Your task to perform on an android device: Search for the new nike air max shoes on Nike. Image 0: 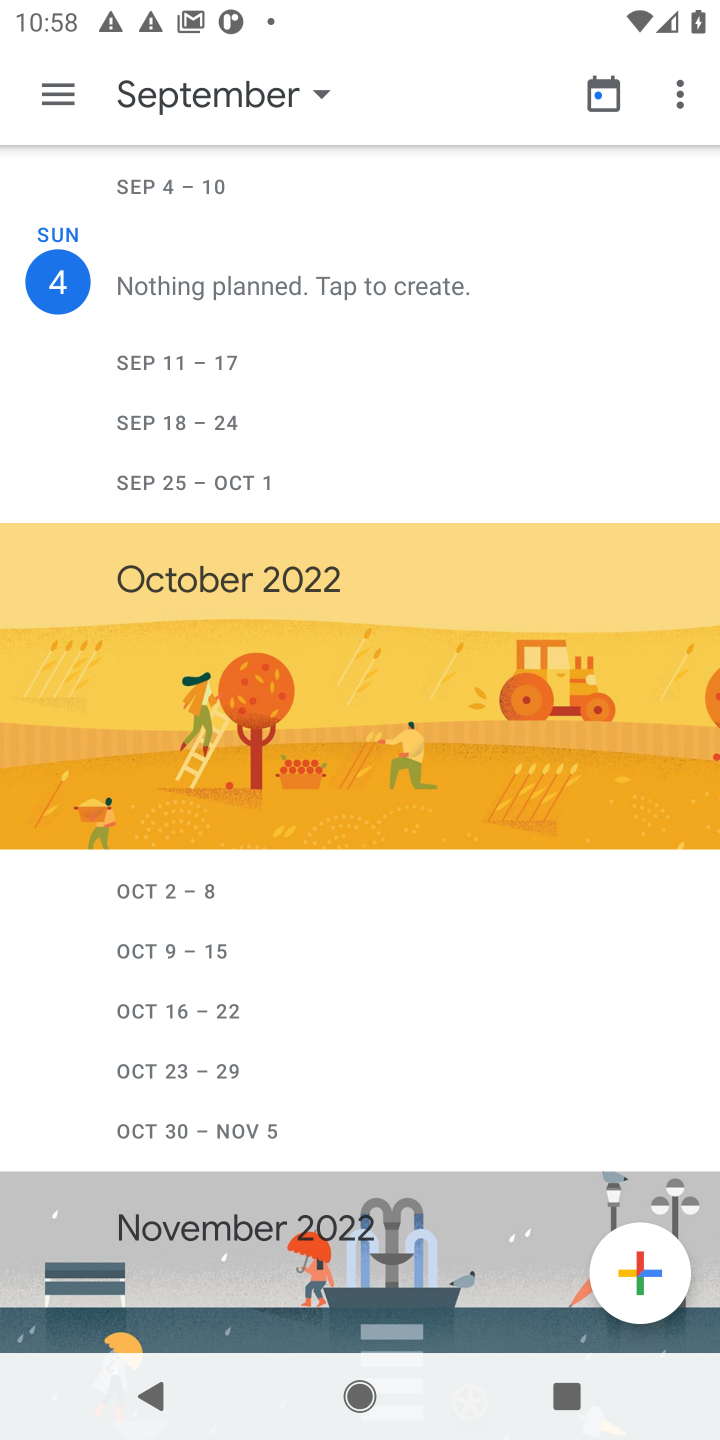
Step 0: press home button
Your task to perform on an android device: Search for the new nike air max shoes on Nike. Image 1: 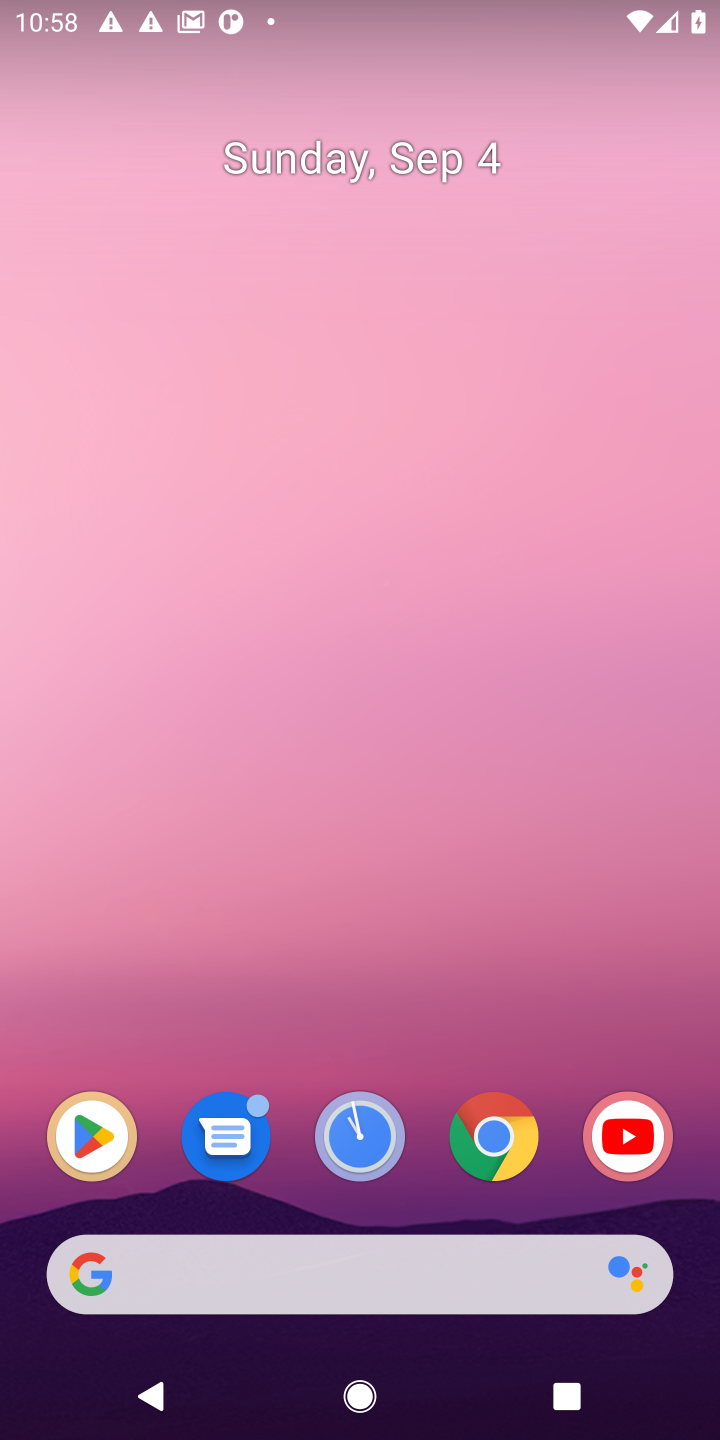
Step 1: click (507, 1151)
Your task to perform on an android device: Search for the new nike air max shoes on Nike. Image 2: 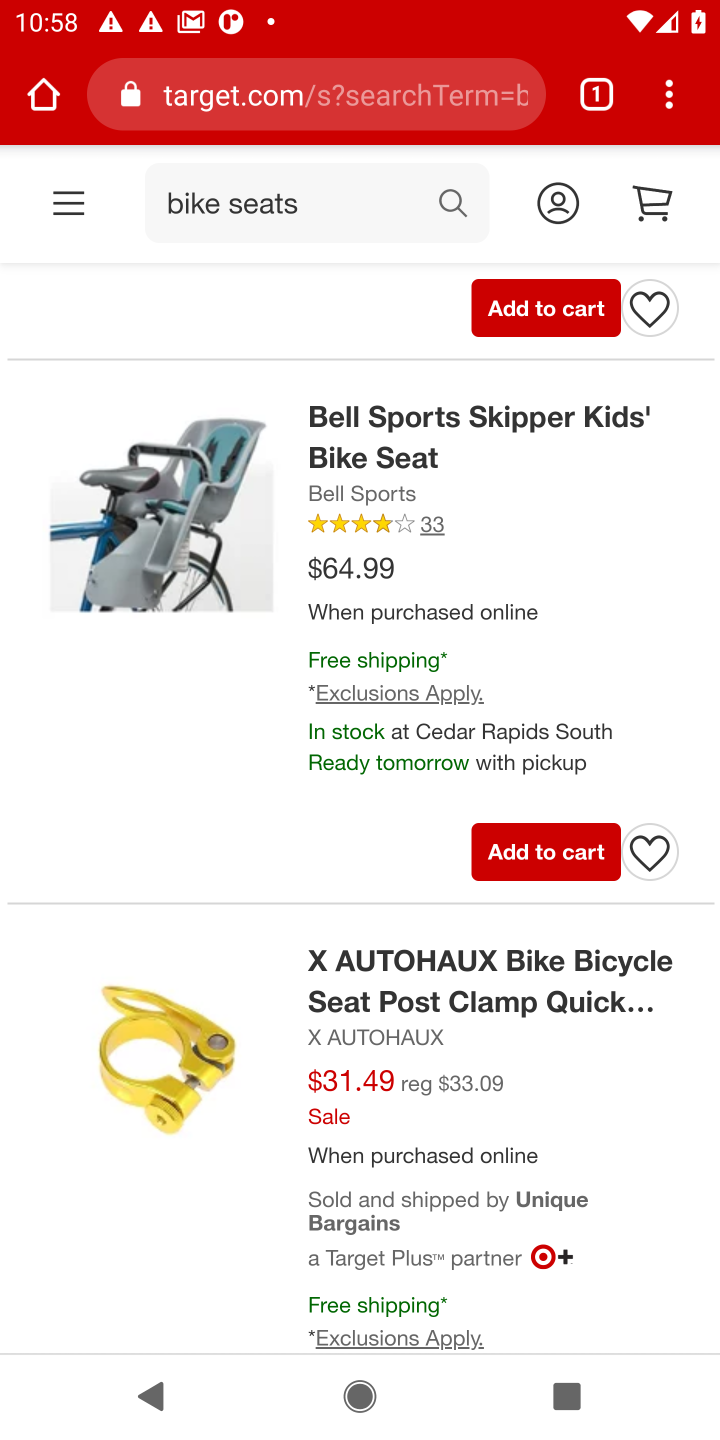
Step 2: click (453, 99)
Your task to perform on an android device: Search for the new nike air max shoes on Nike. Image 3: 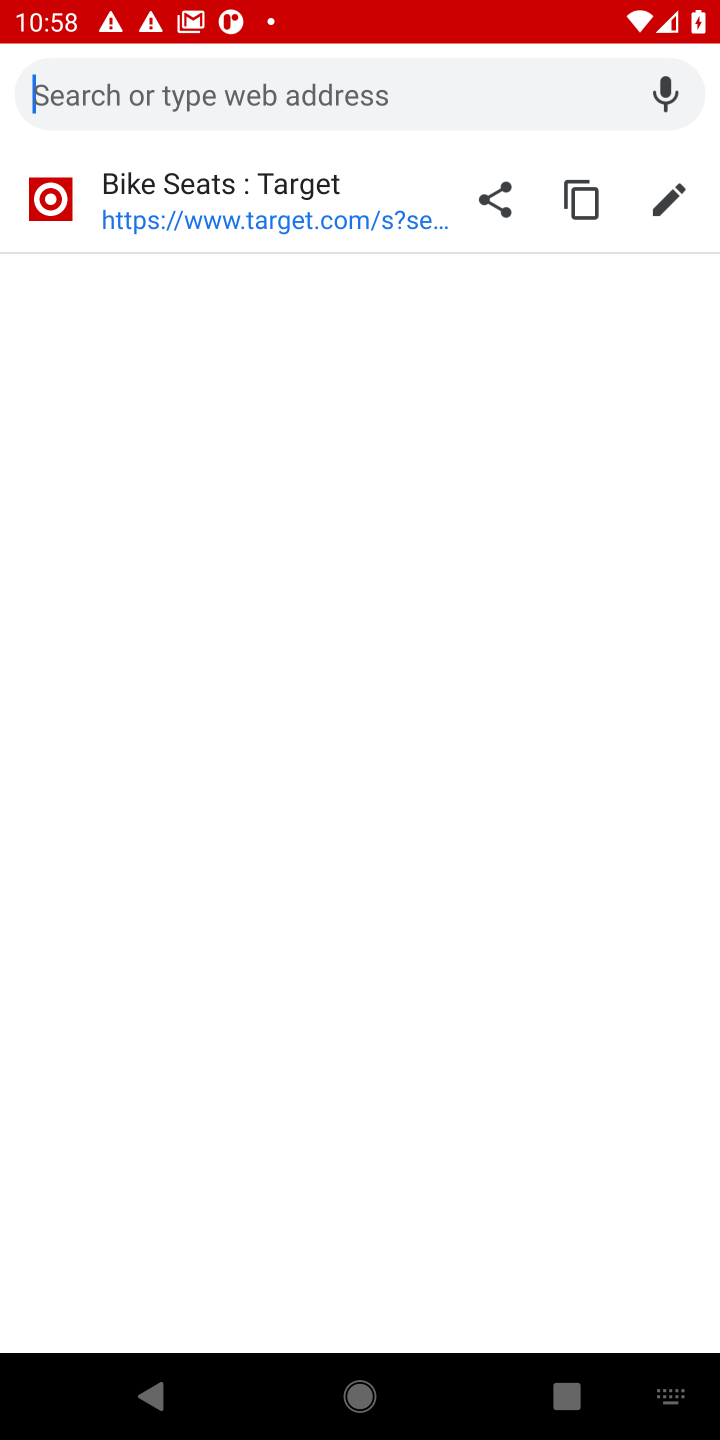
Step 3: press enter
Your task to perform on an android device: Search for the new nike air max shoes on Nike. Image 4: 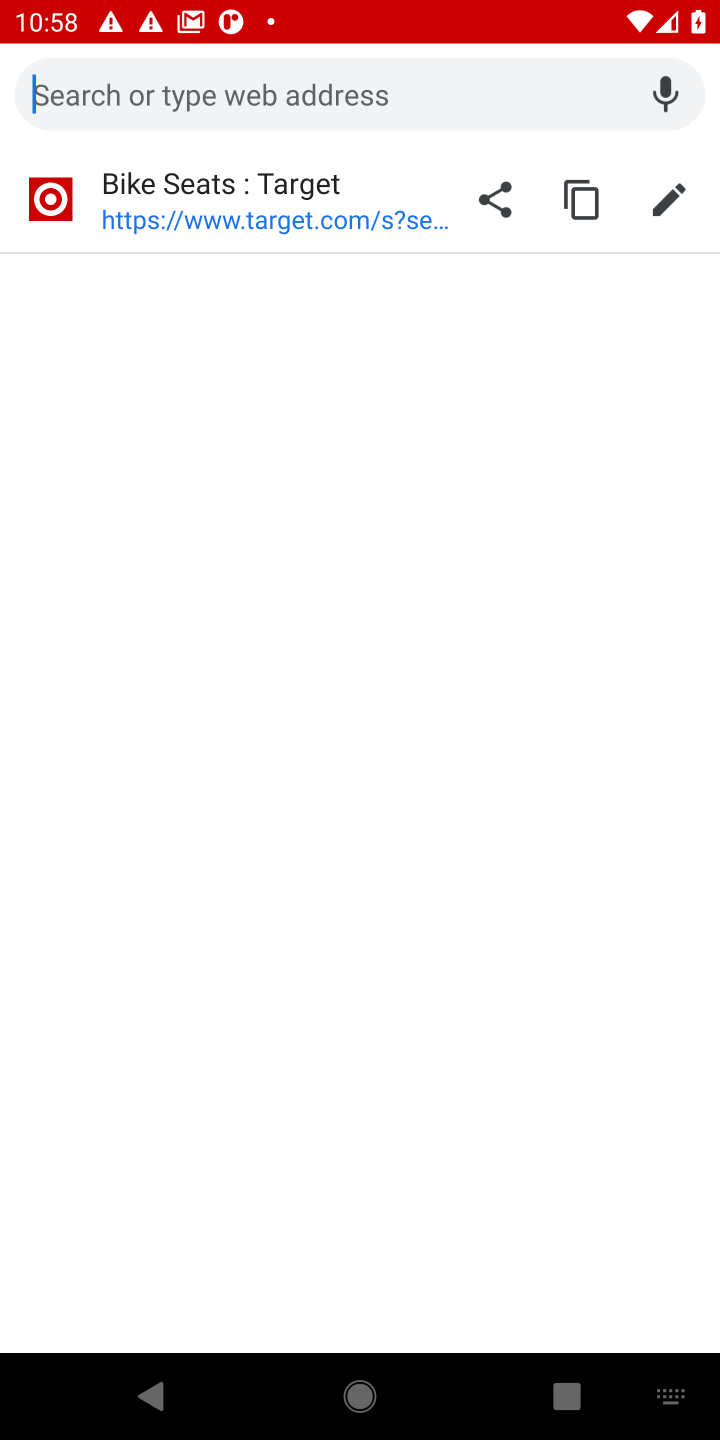
Step 4: type "Nike"
Your task to perform on an android device: Search for the new nike air max shoes on Nike. Image 5: 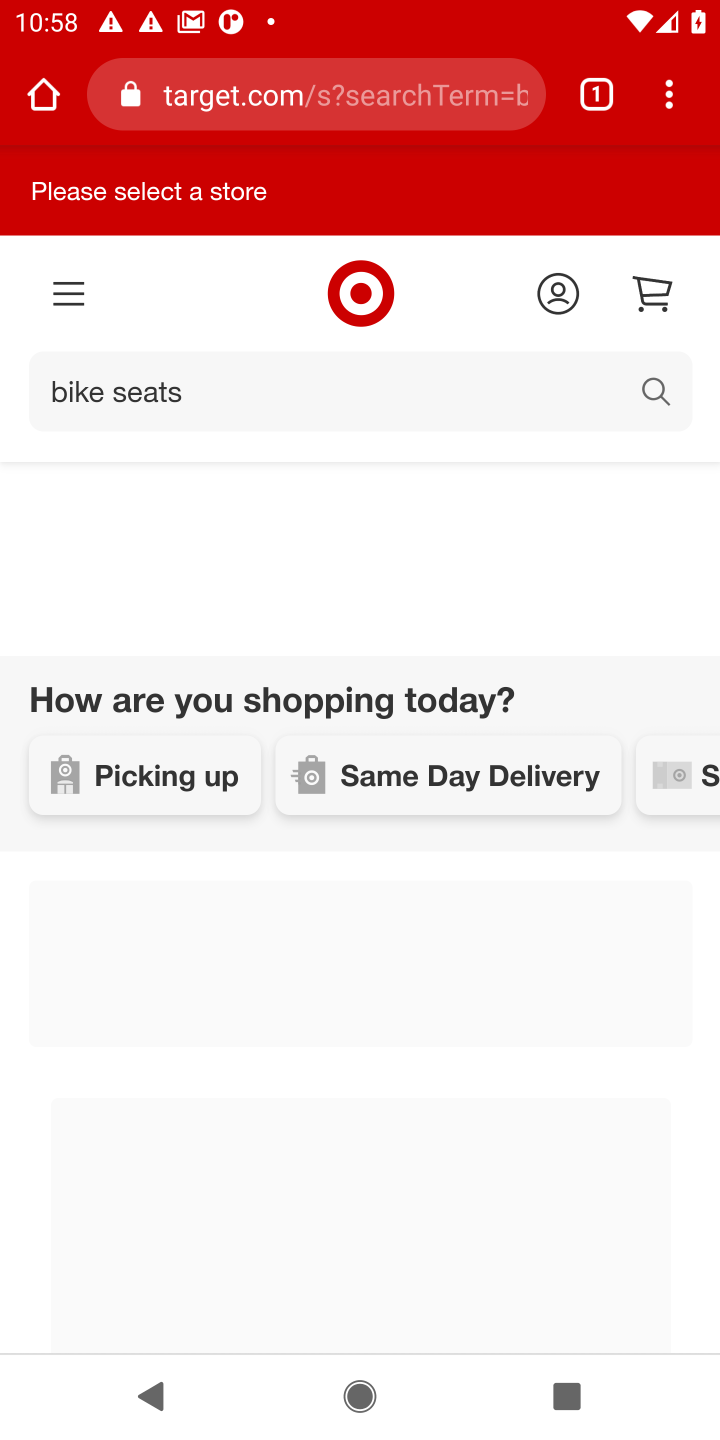
Step 5: click (406, 100)
Your task to perform on an android device: Search for the new nike air max shoes on Nike. Image 6: 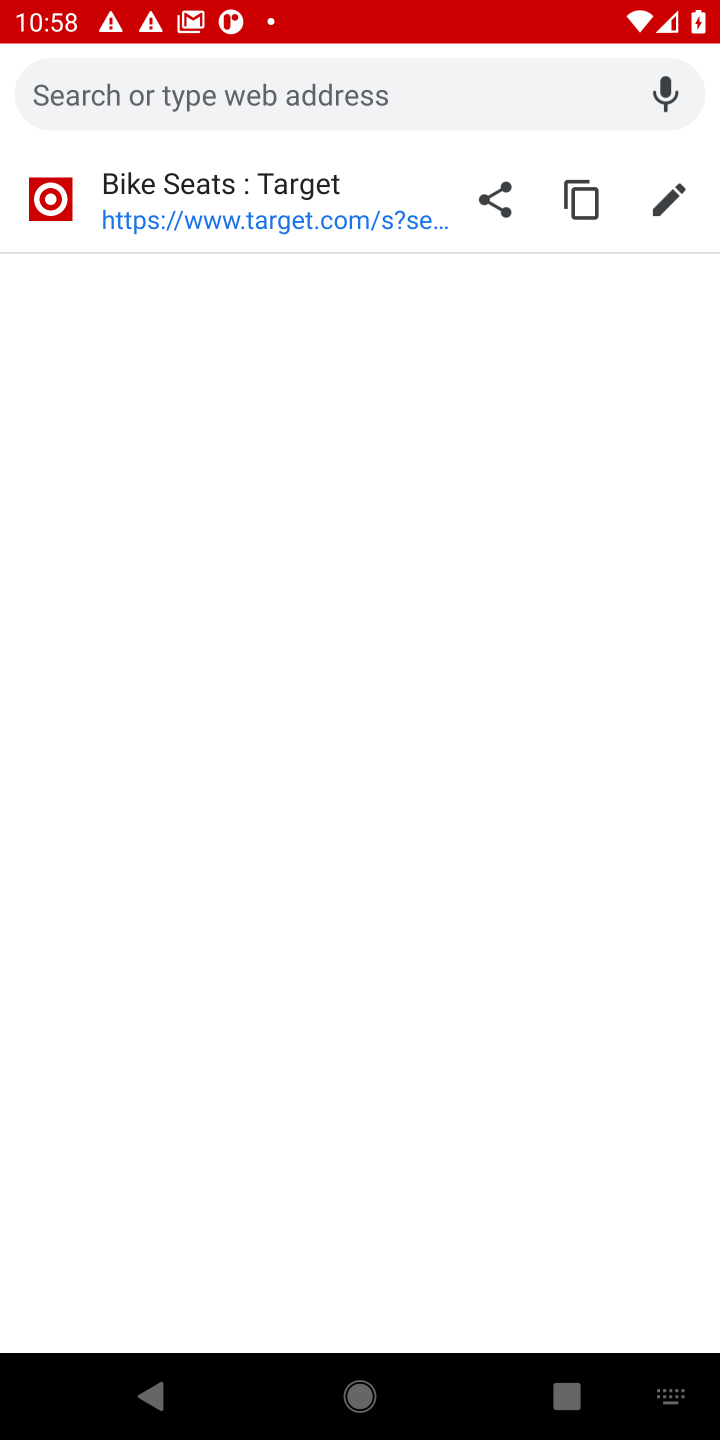
Step 6: press enter
Your task to perform on an android device: Search for the new nike air max shoes on Nike. Image 7: 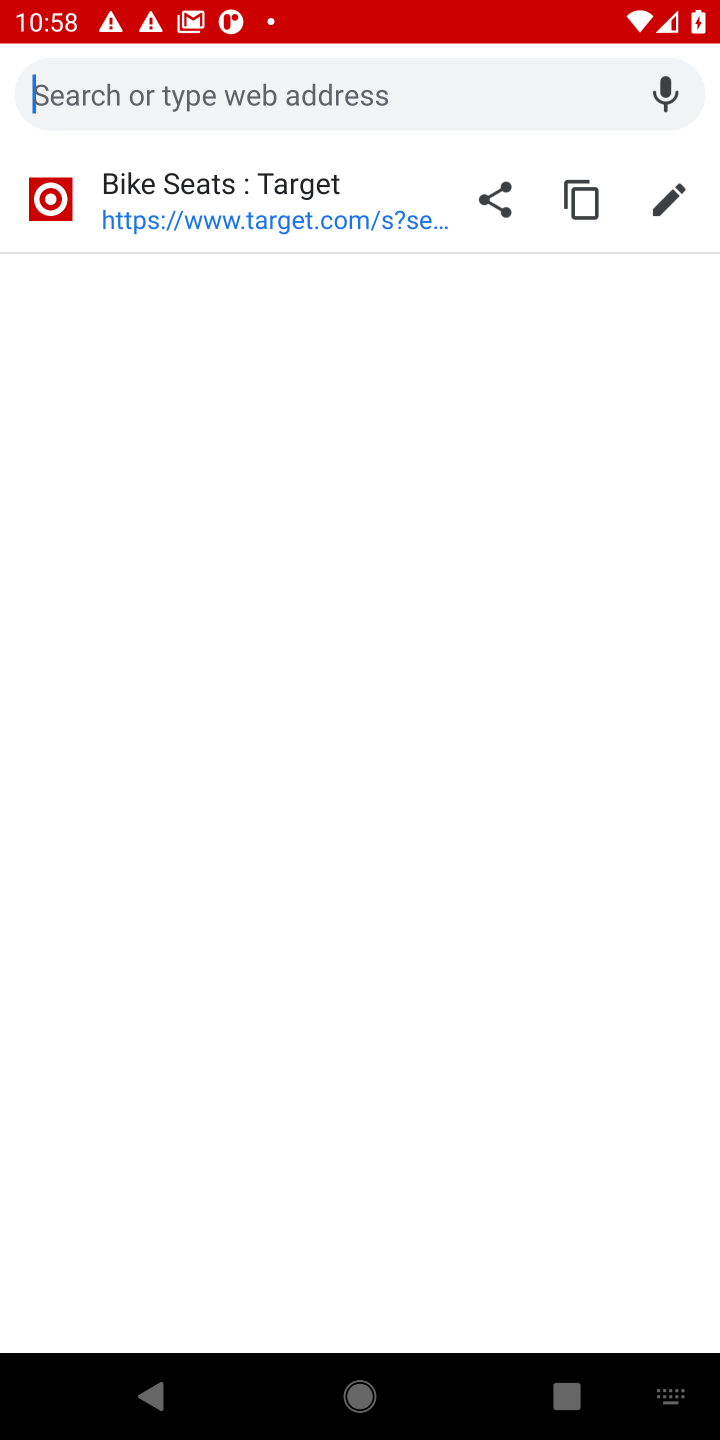
Step 7: type "Nike"
Your task to perform on an android device: Search for the new nike air max shoes on Nike. Image 8: 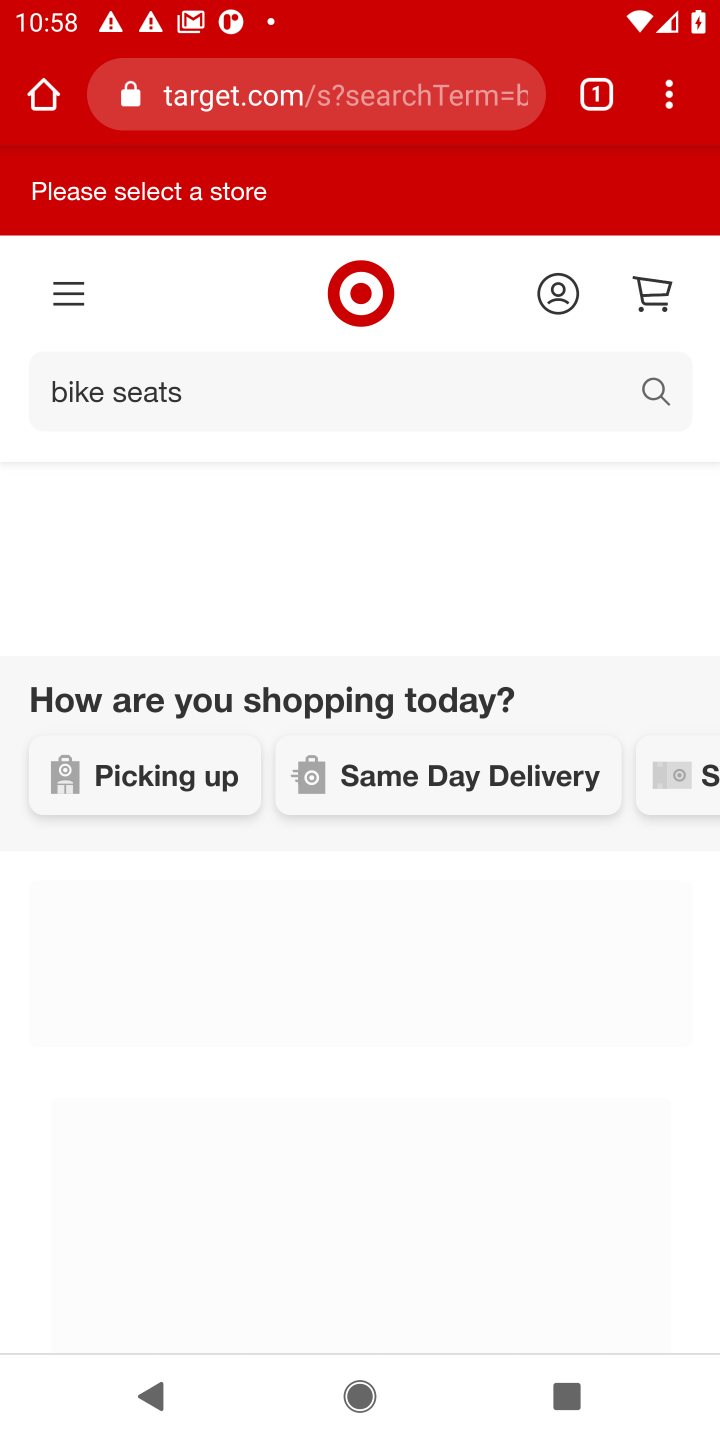
Step 8: click (295, 112)
Your task to perform on an android device: Search for the new nike air max shoes on Nike. Image 9: 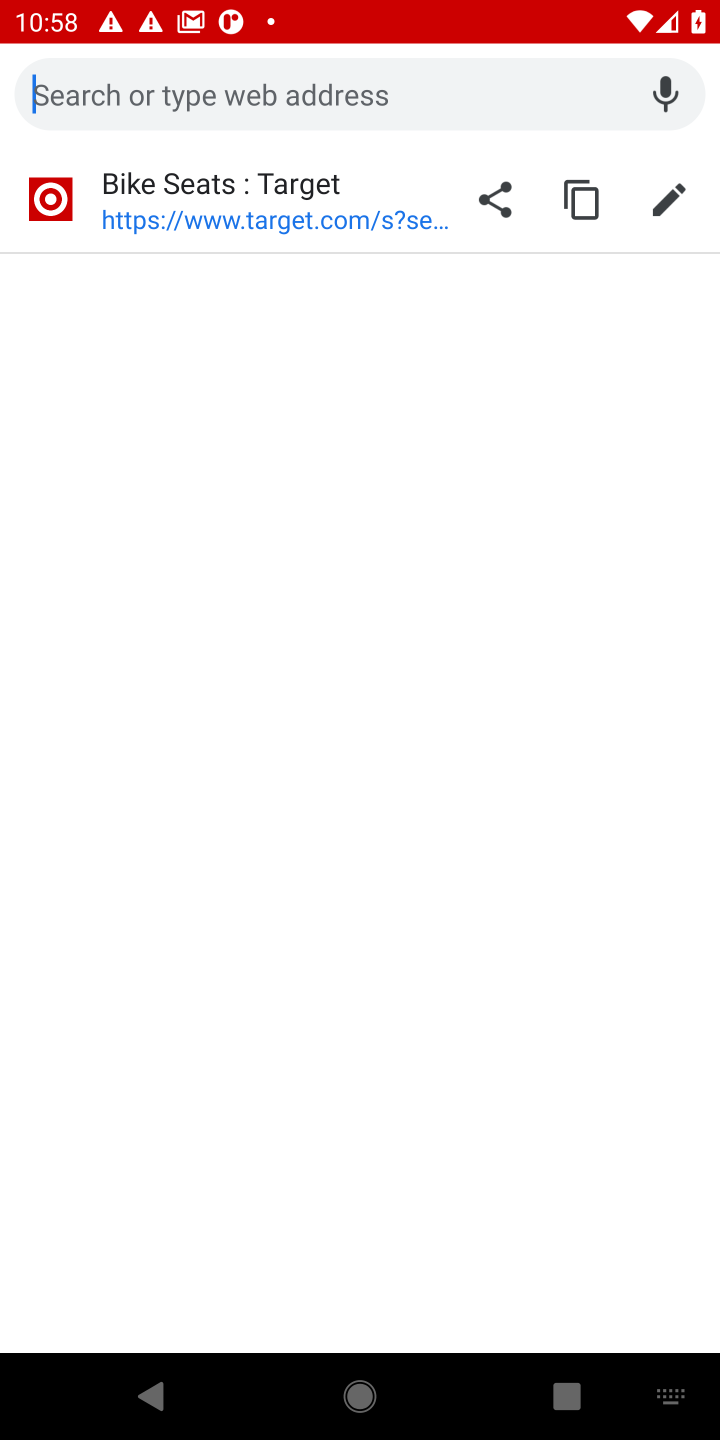
Step 9: type "Nike"
Your task to perform on an android device: Search for the new nike air max shoes on Nike. Image 10: 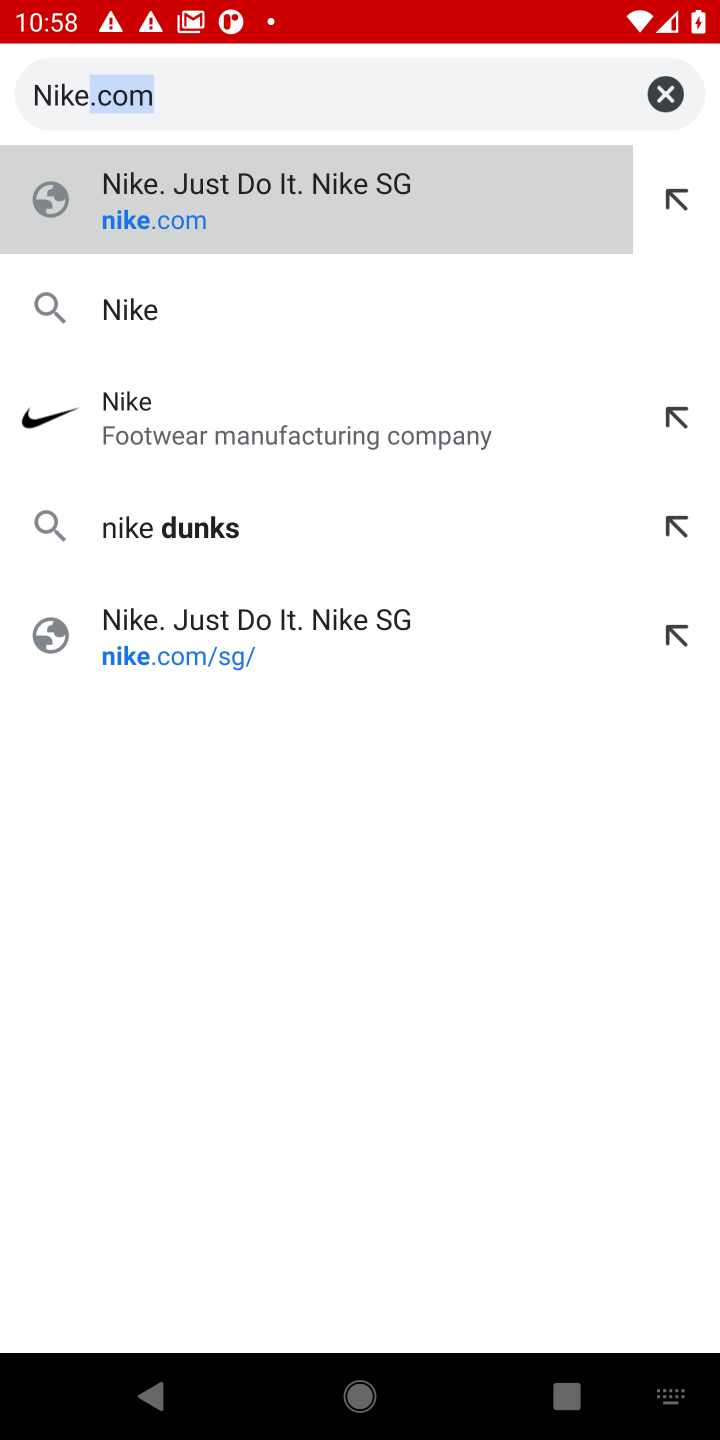
Step 10: press enter
Your task to perform on an android device: Search for the new nike air max shoes on Nike. Image 11: 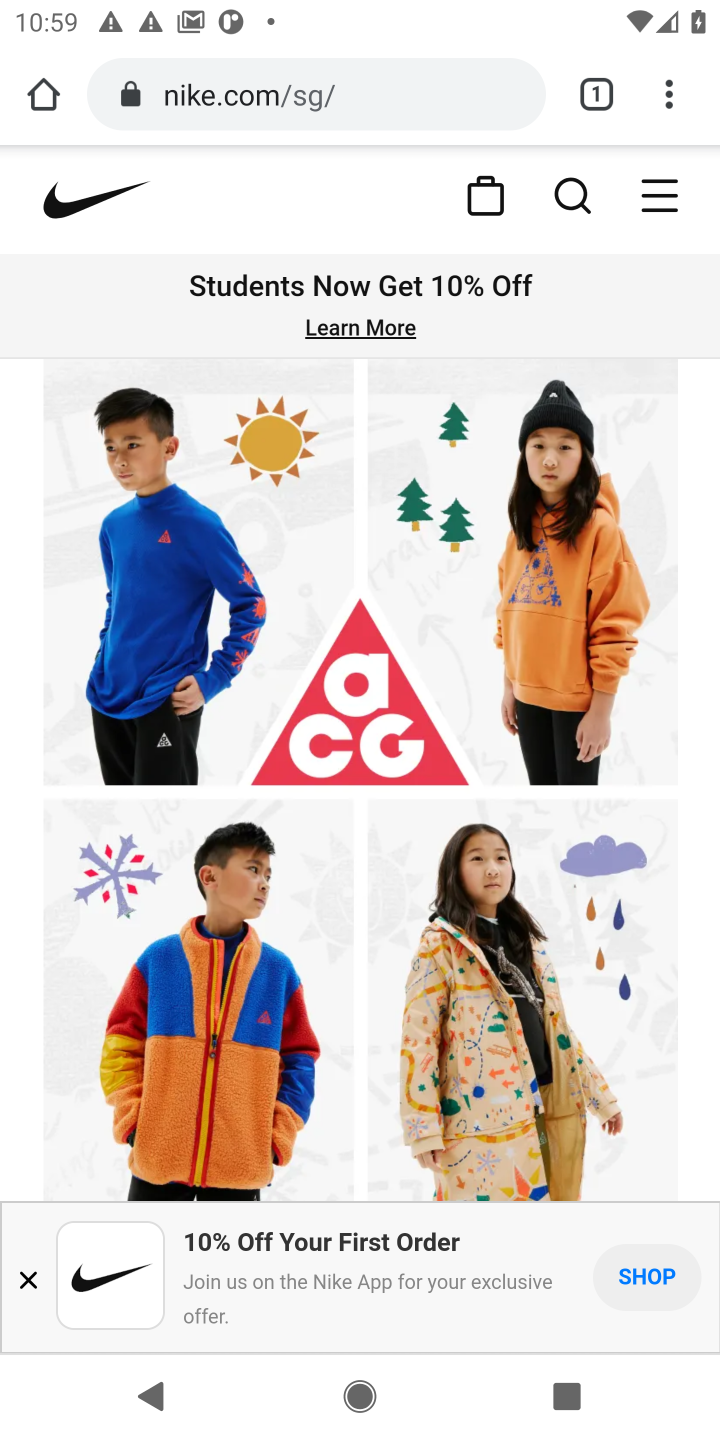
Step 11: click (555, 214)
Your task to perform on an android device: Search for the new nike air max shoes on Nike. Image 12: 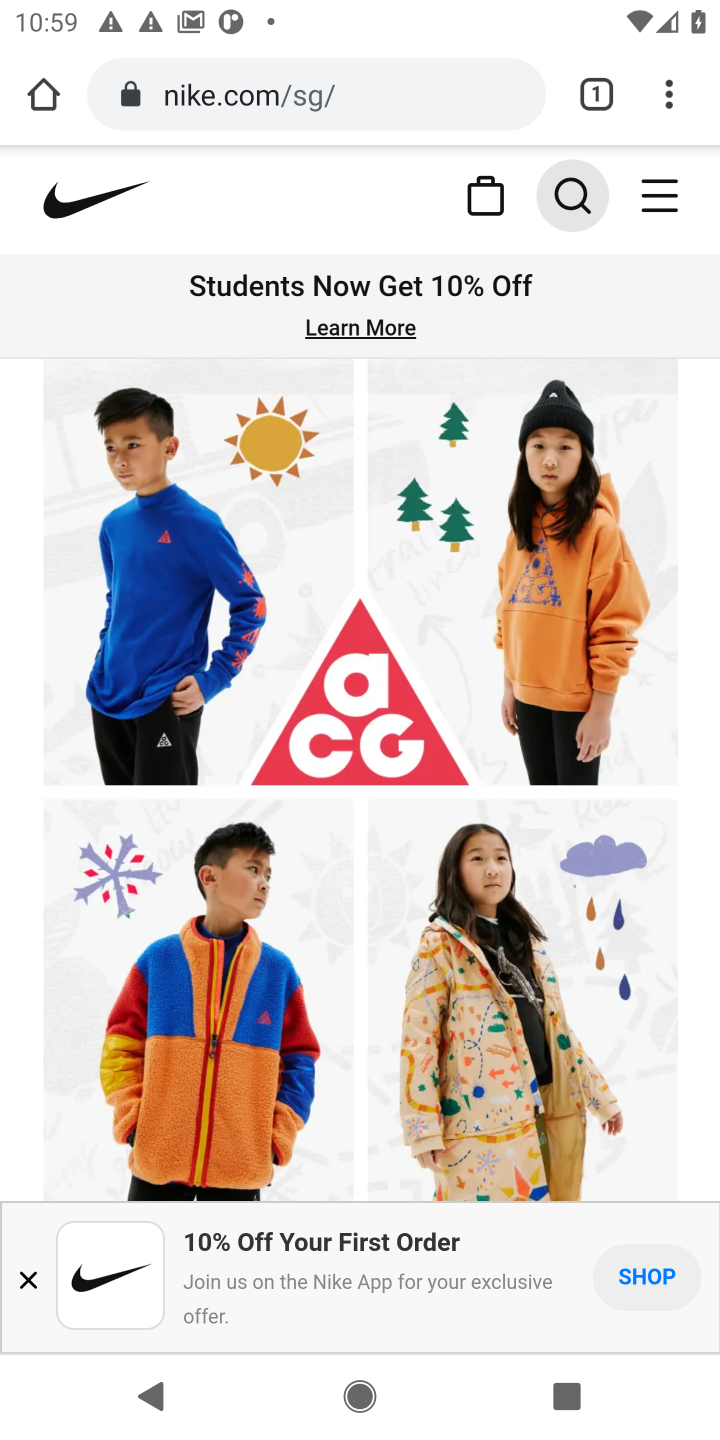
Step 12: click (536, 172)
Your task to perform on an android device: Search for the new nike air max shoes on Nike. Image 13: 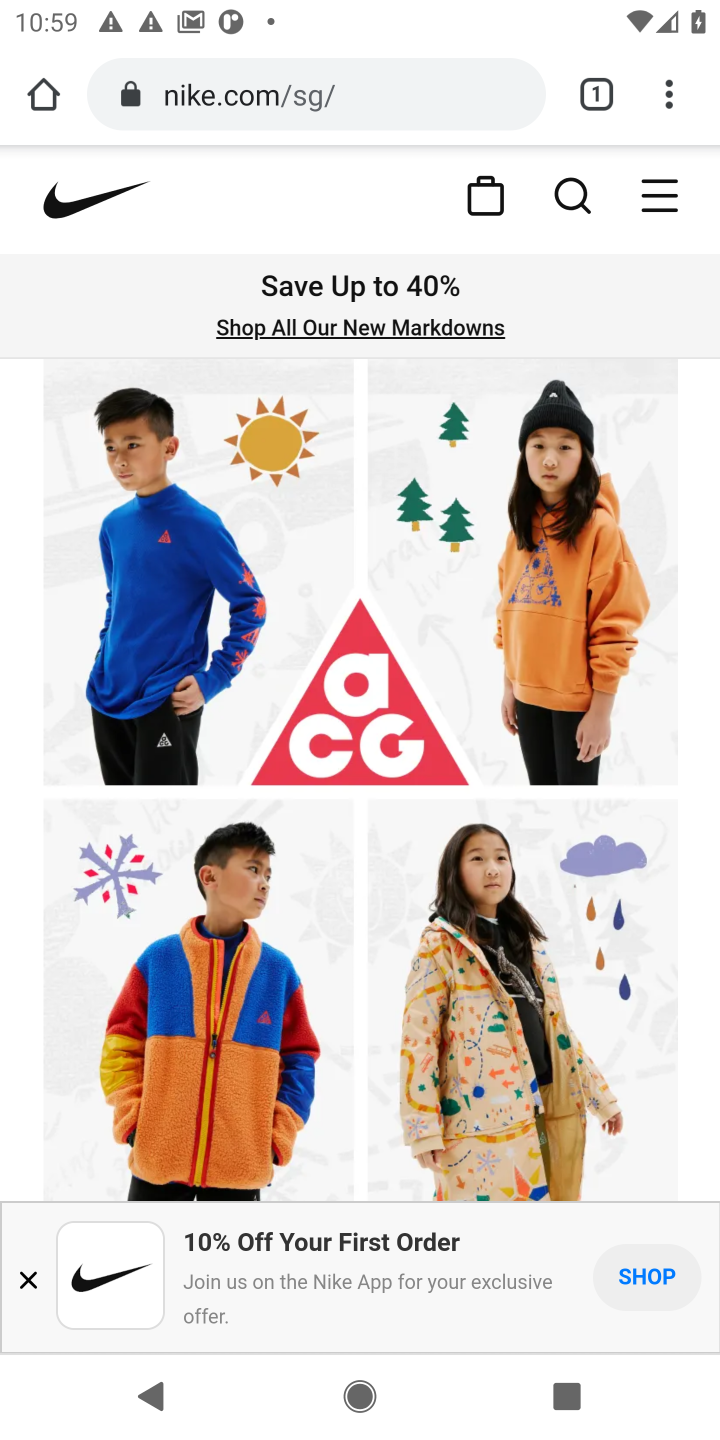
Step 13: click (550, 182)
Your task to perform on an android device: Search for the new nike air max shoes on Nike. Image 14: 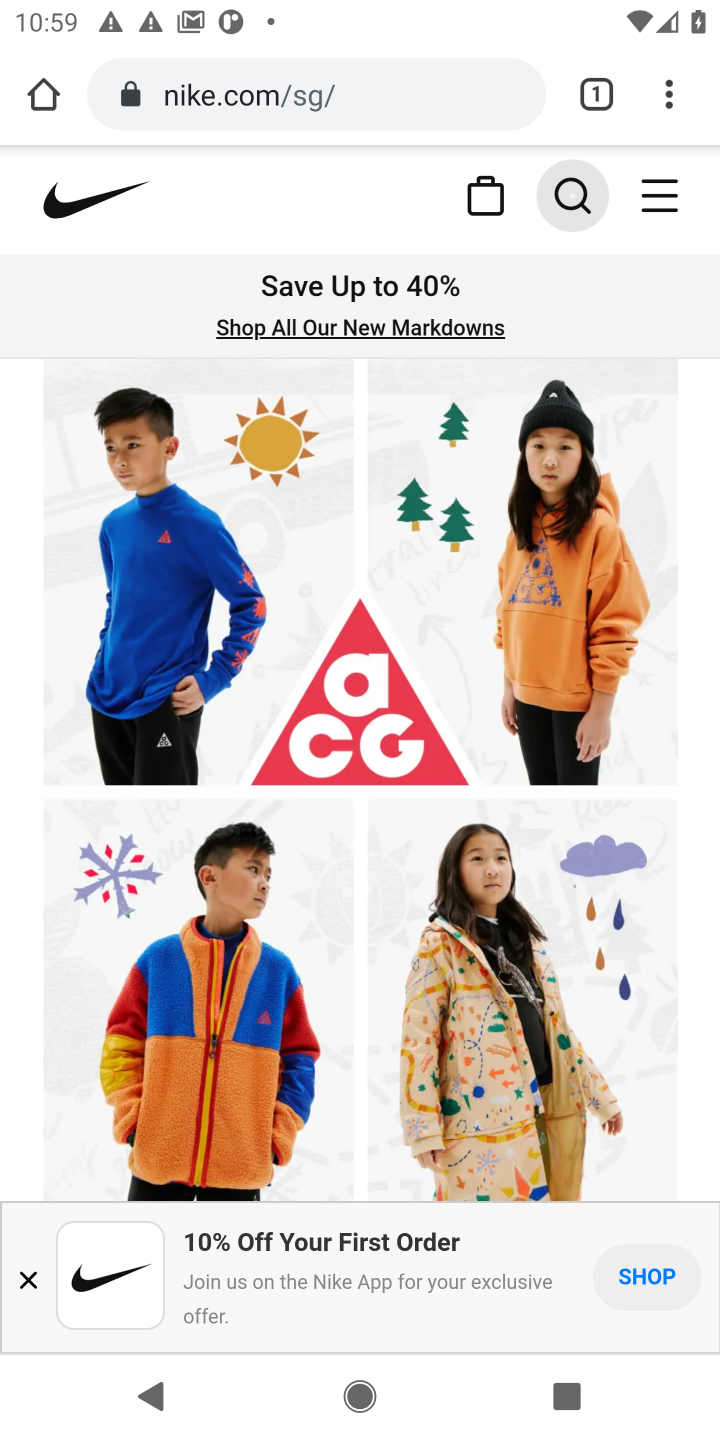
Step 14: click (525, 168)
Your task to perform on an android device: Search for the new nike air max shoes on Nike. Image 15: 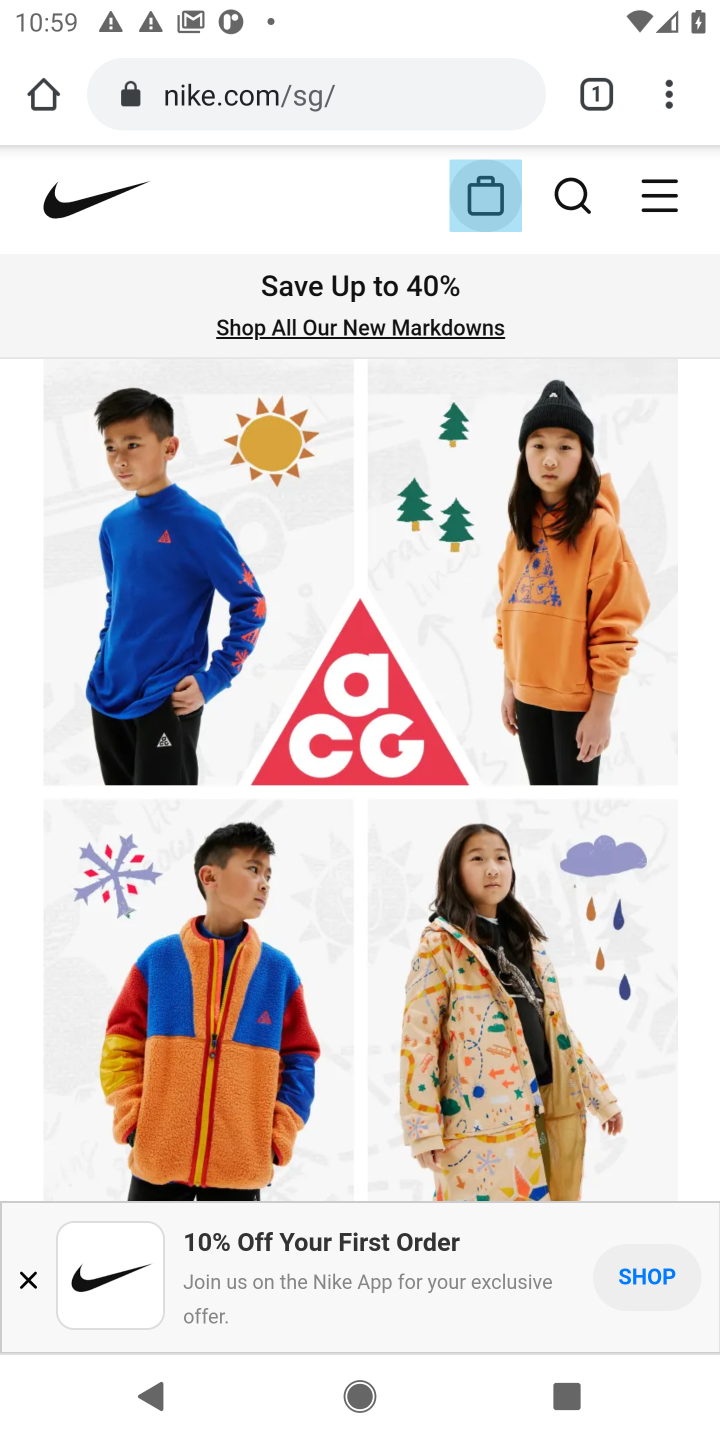
Step 15: click (565, 188)
Your task to perform on an android device: Search for the new nike air max shoes on Nike. Image 16: 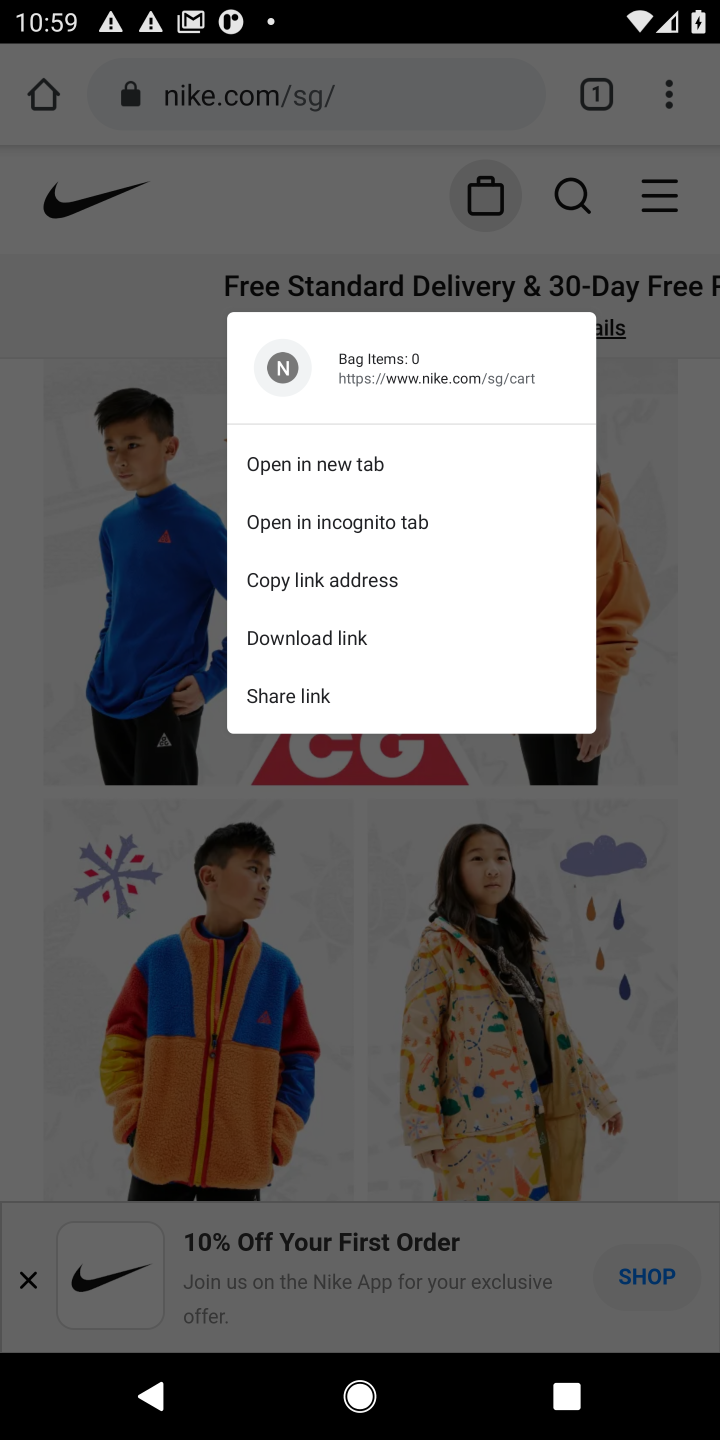
Step 16: click (544, 227)
Your task to perform on an android device: Search for the new nike air max shoes on Nike. Image 17: 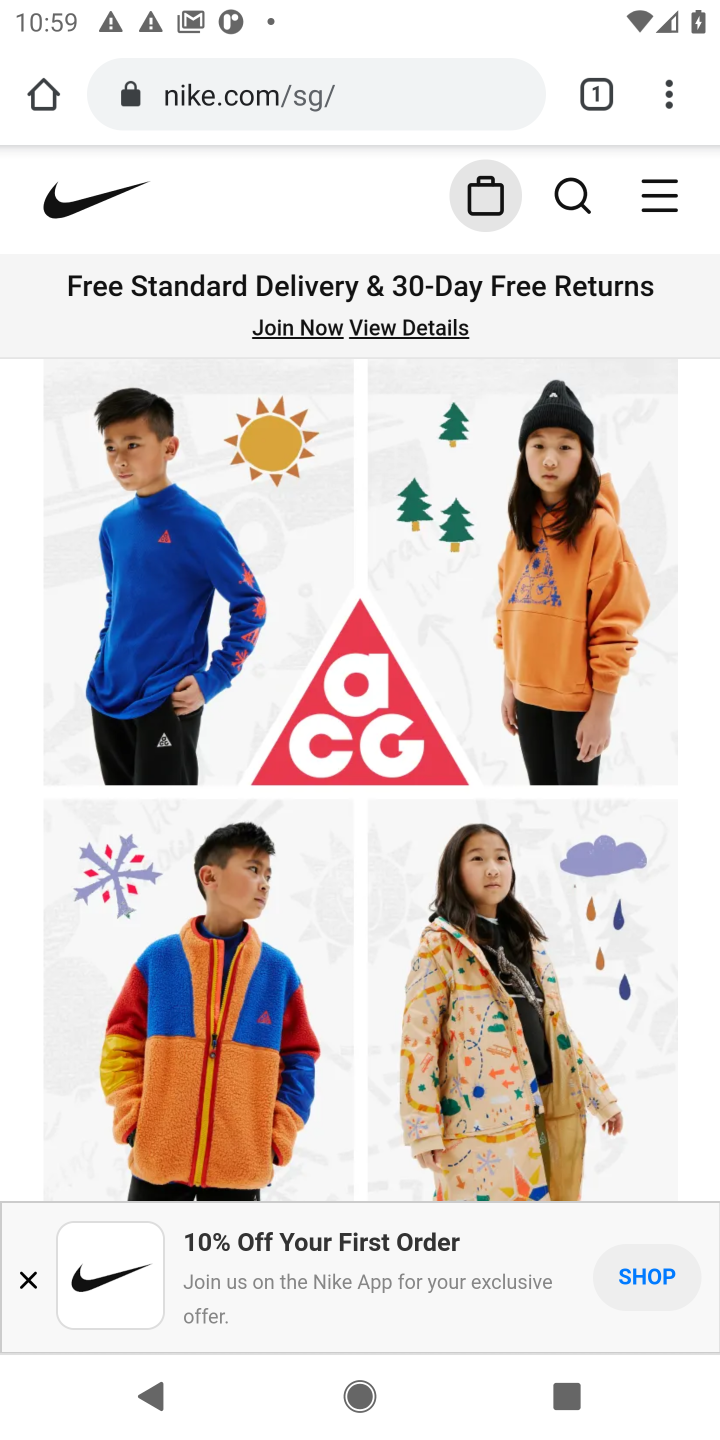
Step 17: click (571, 227)
Your task to perform on an android device: Search for the new nike air max shoes on Nike. Image 18: 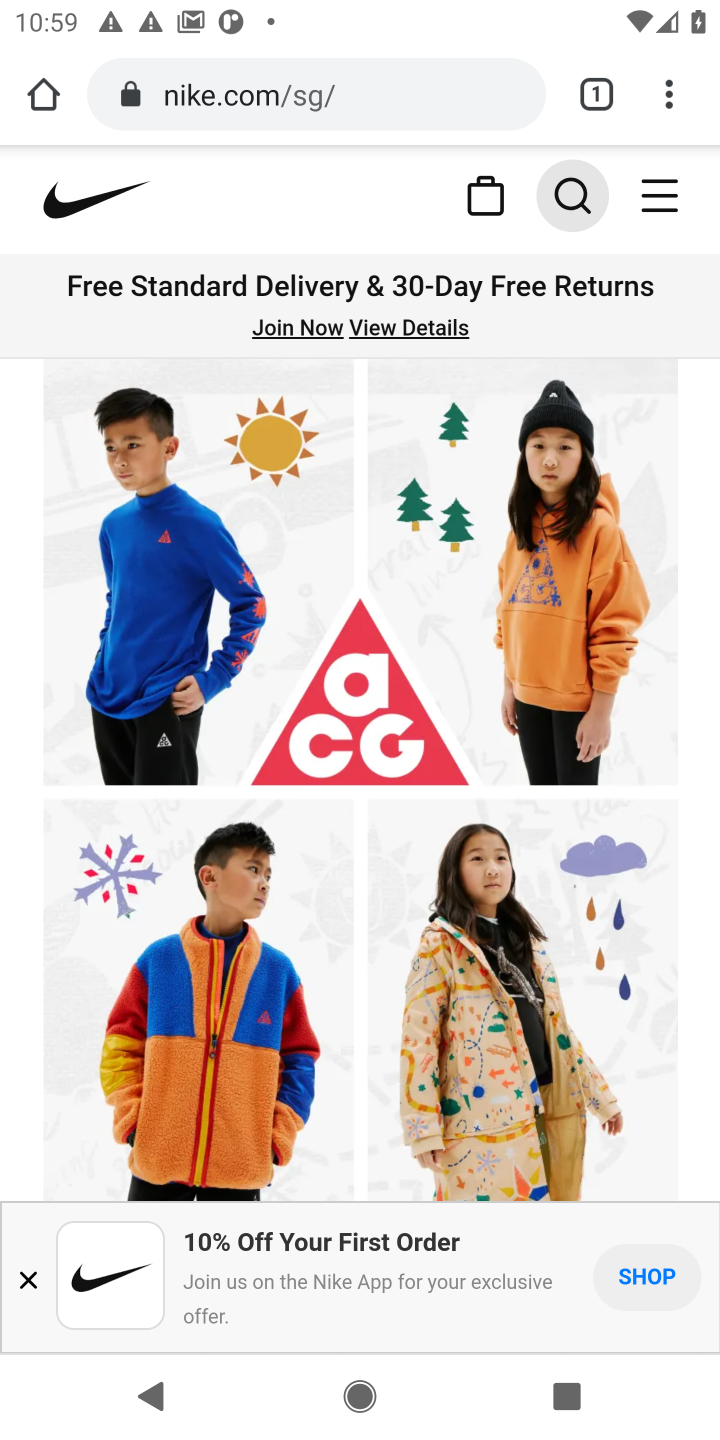
Step 18: click (551, 162)
Your task to perform on an android device: Search for the new nike air max shoes on Nike. Image 19: 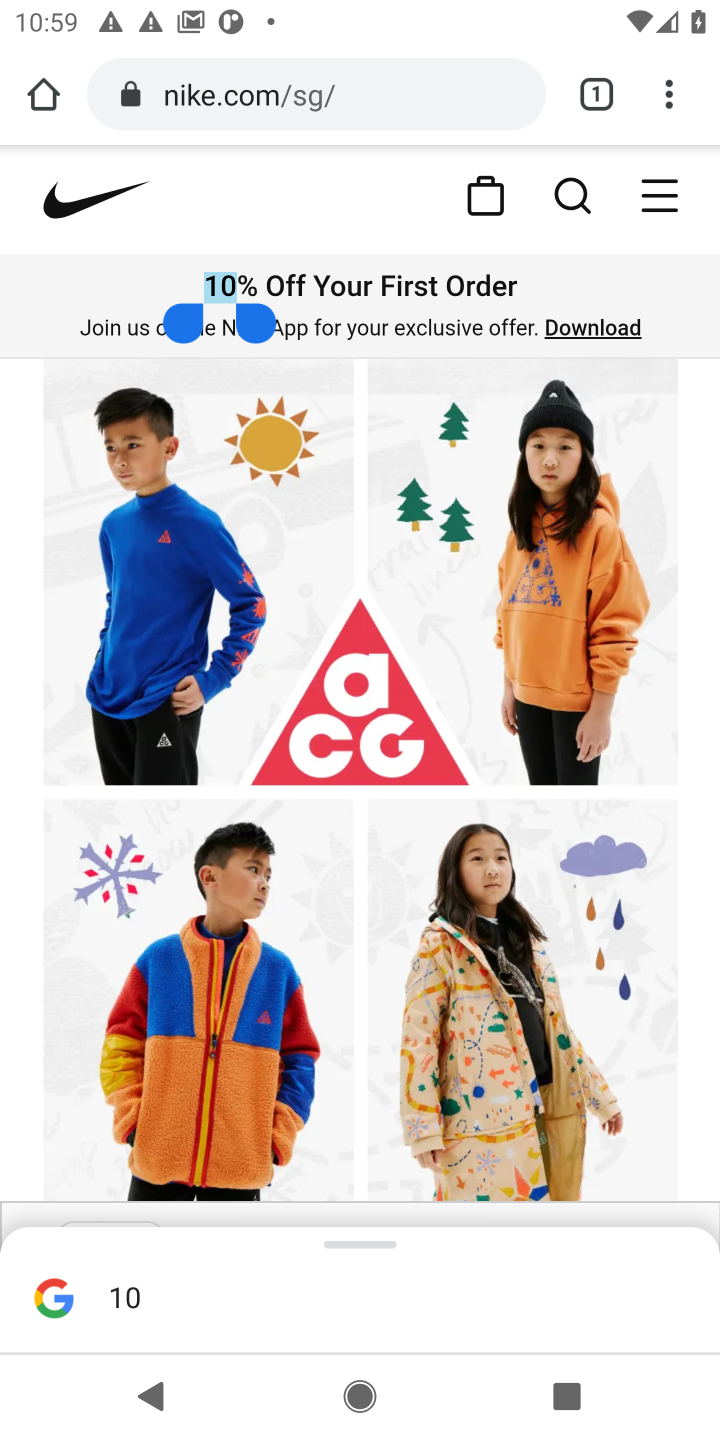
Step 19: click (548, 168)
Your task to perform on an android device: Search for the new nike air max shoes on Nike. Image 20: 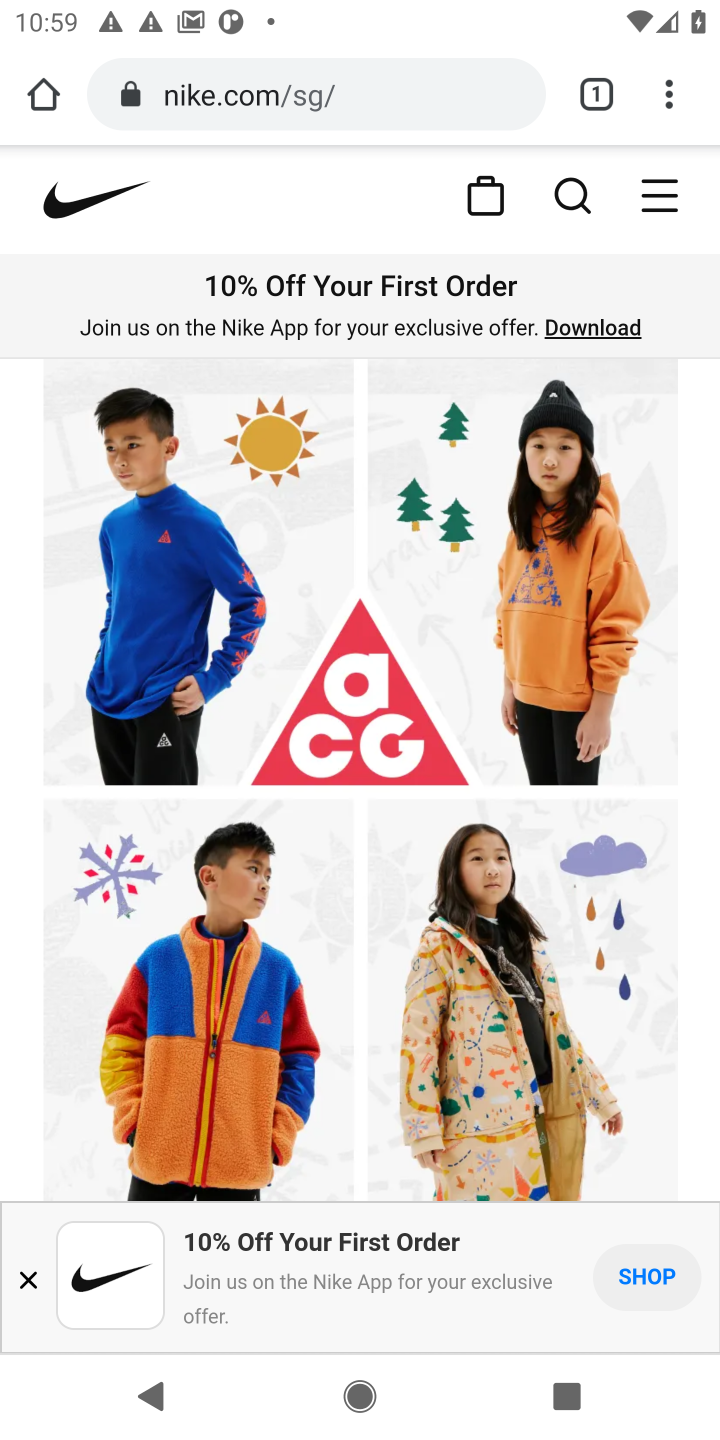
Step 20: click (544, 204)
Your task to perform on an android device: Search for the new nike air max shoes on Nike. Image 21: 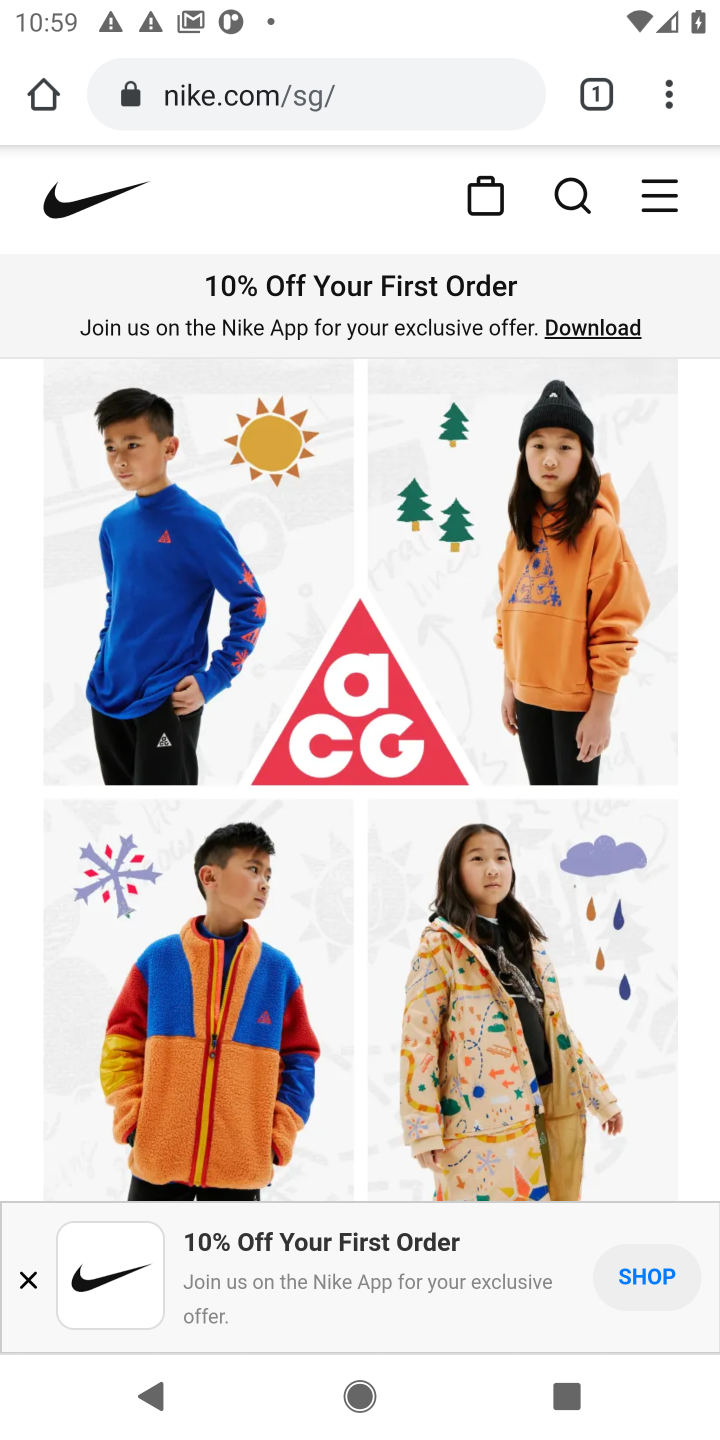
Step 21: click (360, 215)
Your task to perform on an android device: Search for the new nike air max shoes on Nike. Image 22: 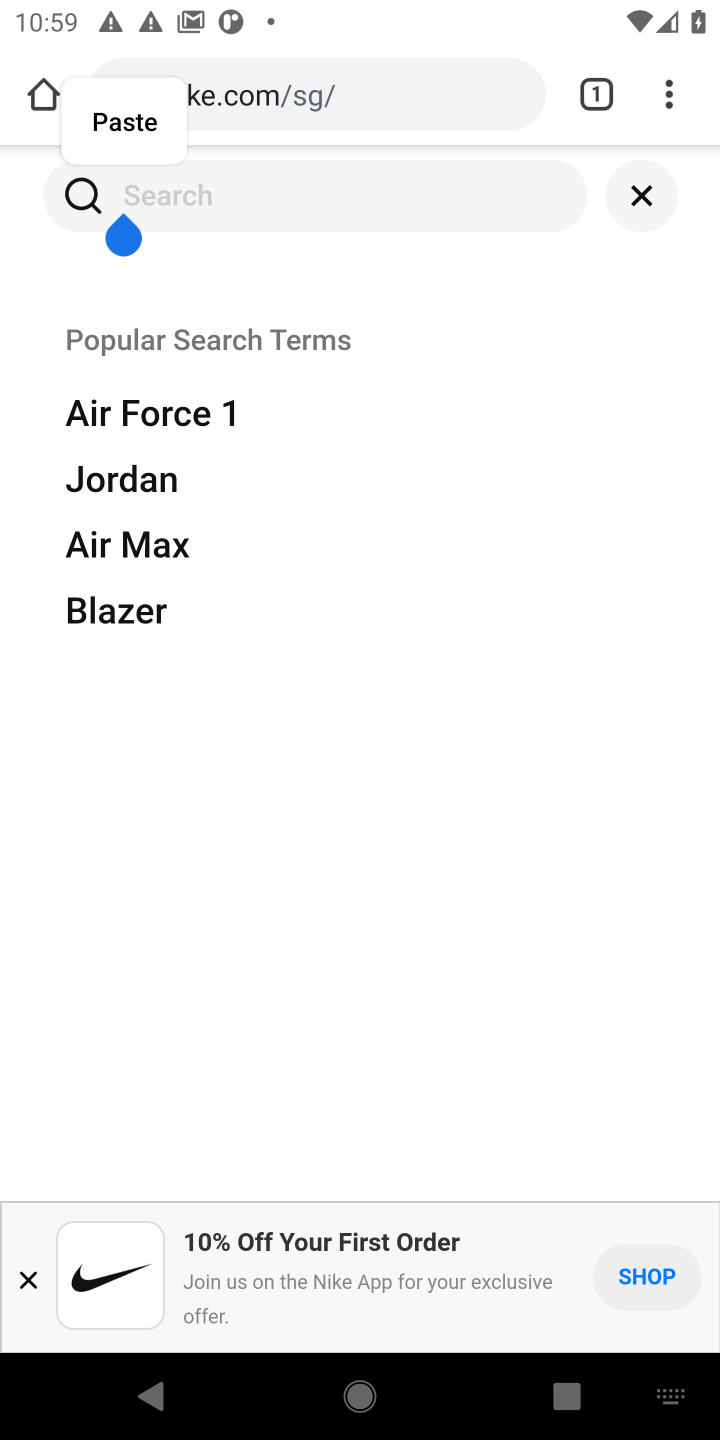
Step 22: click (198, 199)
Your task to perform on an android device: Search for the new nike air max shoes on Nike. Image 23: 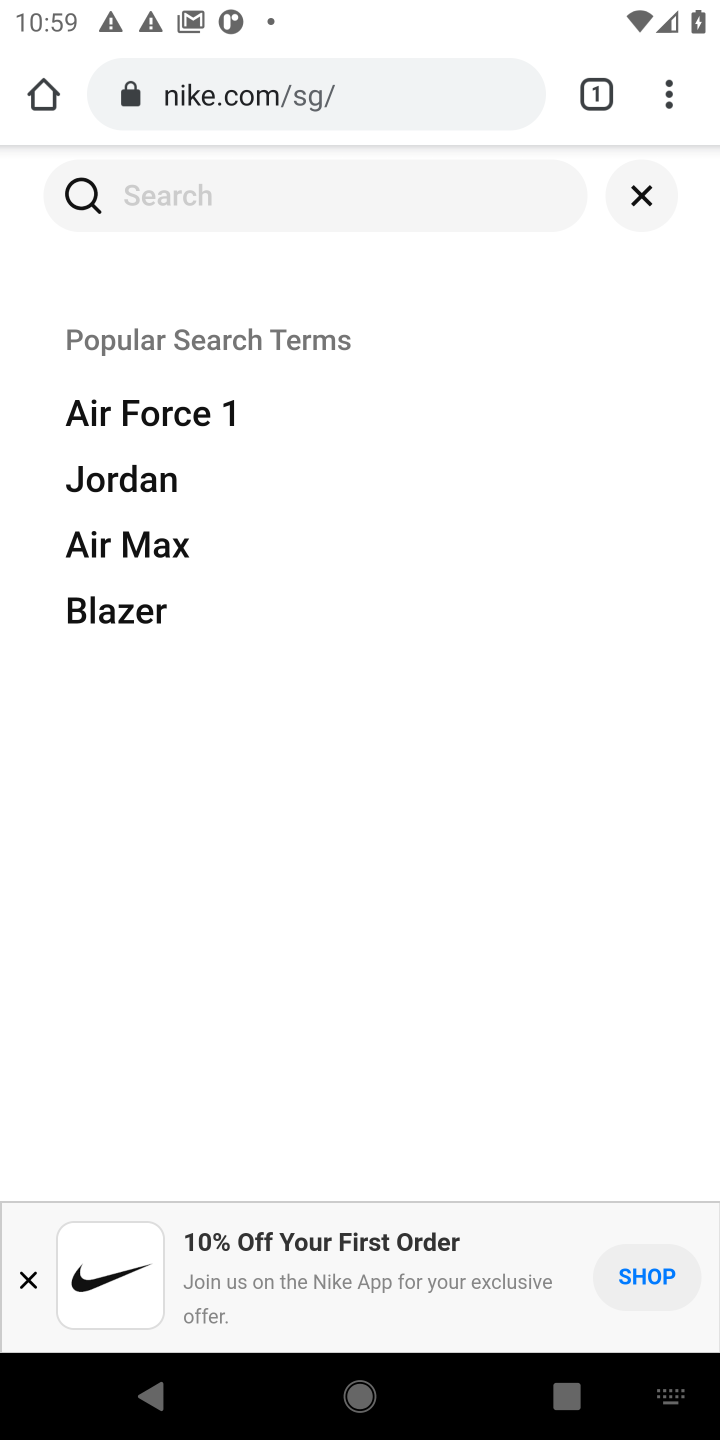
Step 23: type "air max shoes"
Your task to perform on an android device: Search for the new nike air max shoes on Nike. Image 24: 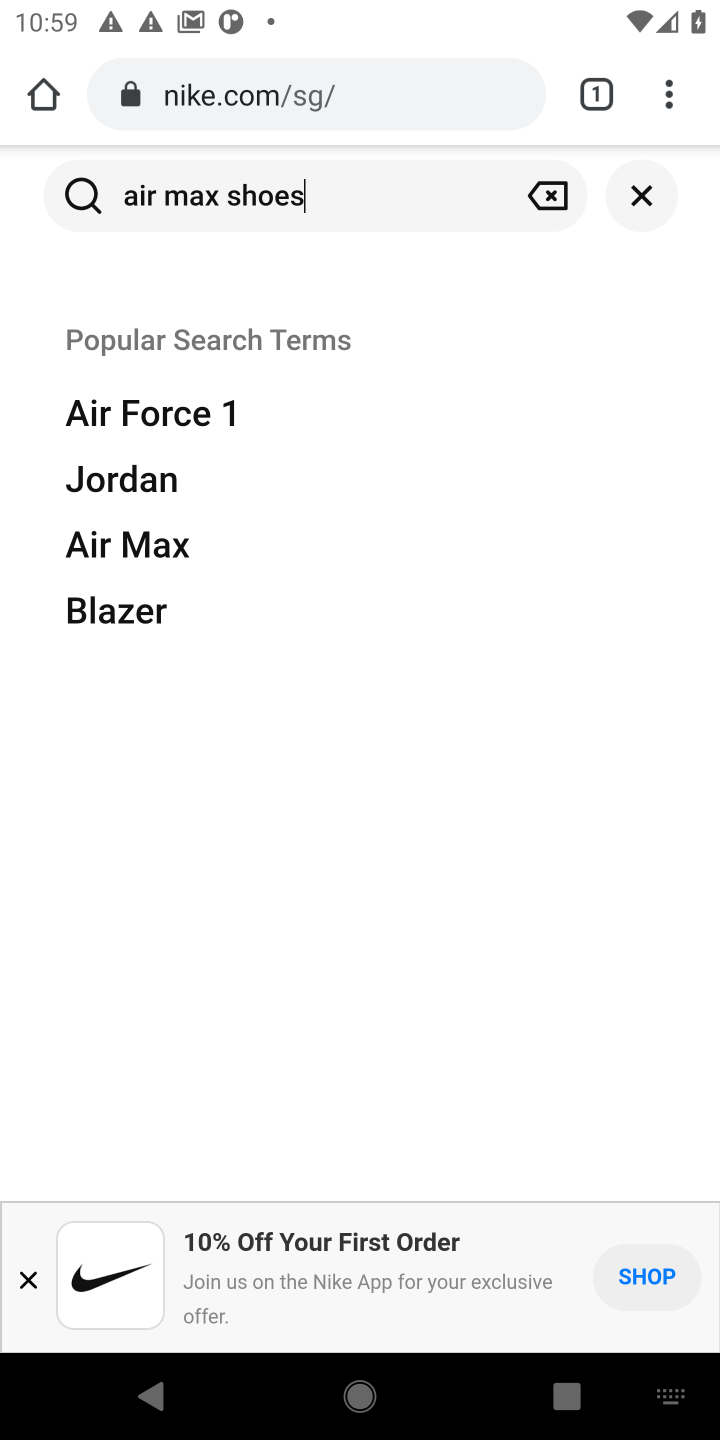
Step 24: press enter
Your task to perform on an android device: Search for the new nike air max shoes on Nike. Image 25: 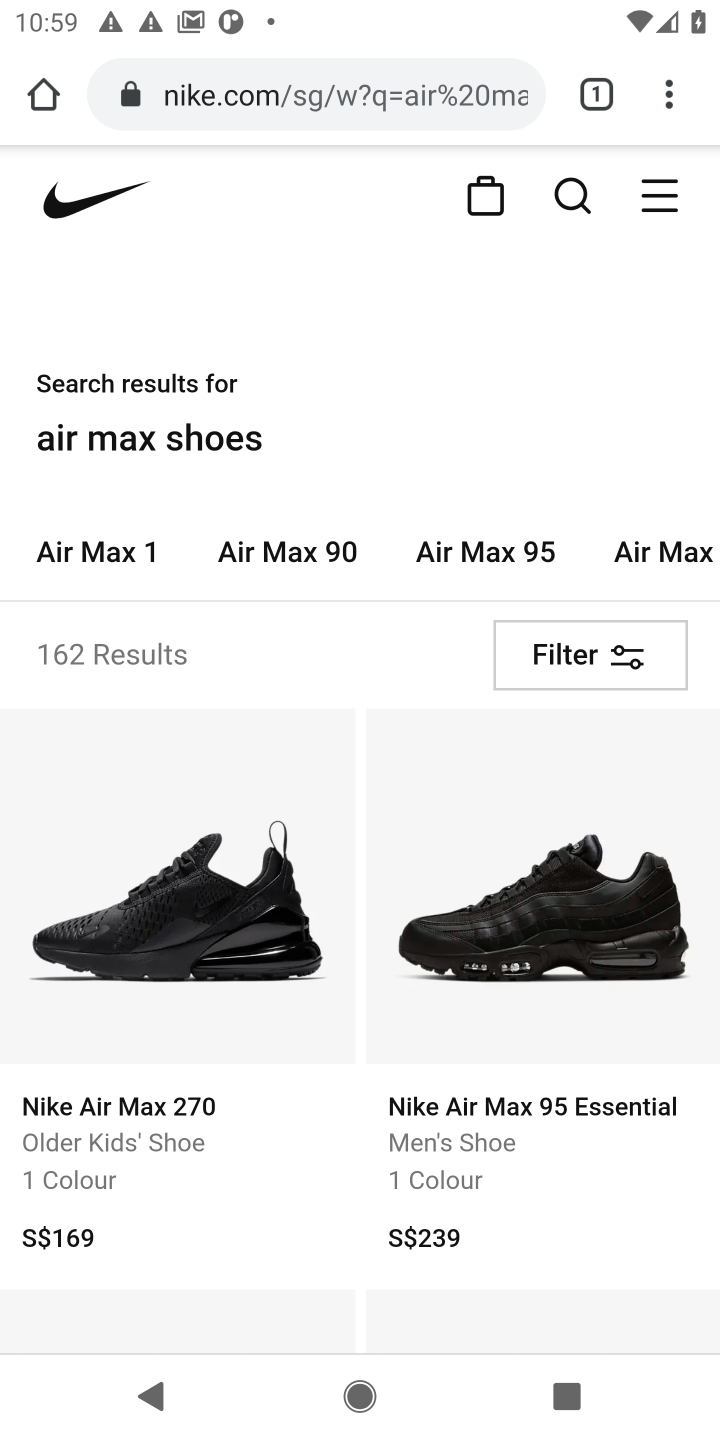
Step 25: task complete